Your task to perform on an android device: Open calendar and show me the first week of next month Image 0: 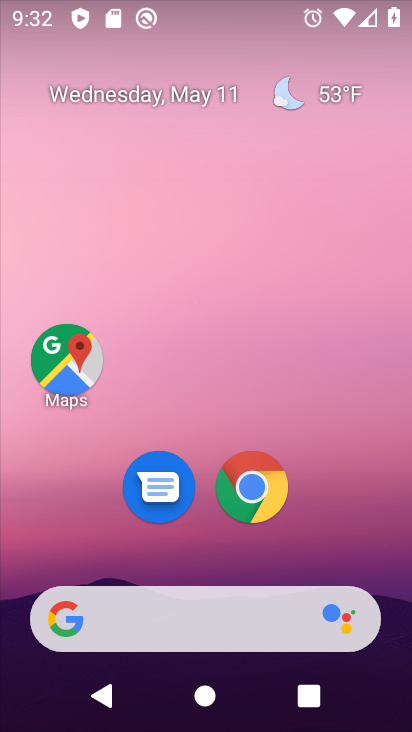
Step 0: drag from (189, 499) to (355, 54)
Your task to perform on an android device: Open calendar and show me the first week of next month Image 1: 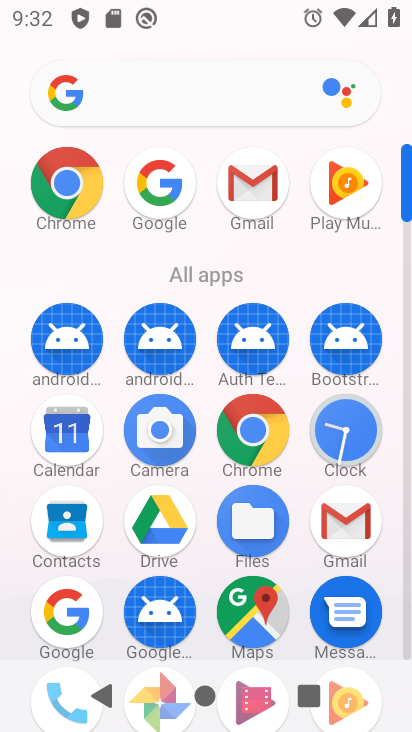
Step 1: drag from (206, 503) to (249, 310)
Your task to perform on an android device: Open calendar and show me the first week of next month Image 2: 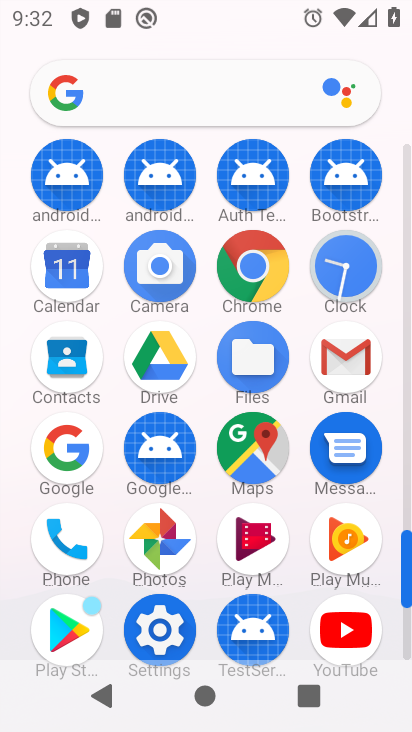
Step 2: drag from (203, 559) to (218, 370)
Your task to perform on an android device: Open calendar and show me the first week of next month Image 3: 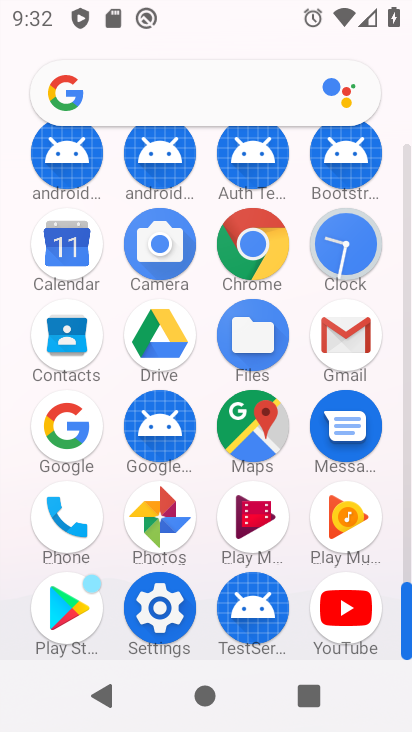
Step 3: click (61, 230)
Your task to perform on an android device: Open calendar and show me the first week of next month Image 4: 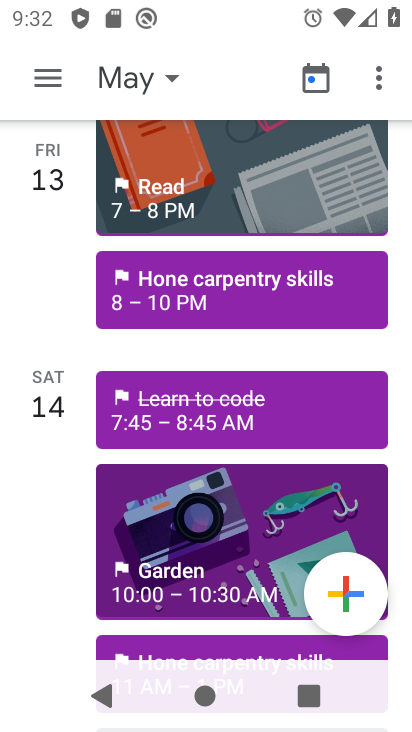
Step 4: click (170, 77)
Your task to perform on an android device: Open calendar and show me the first week of next month Image 5: 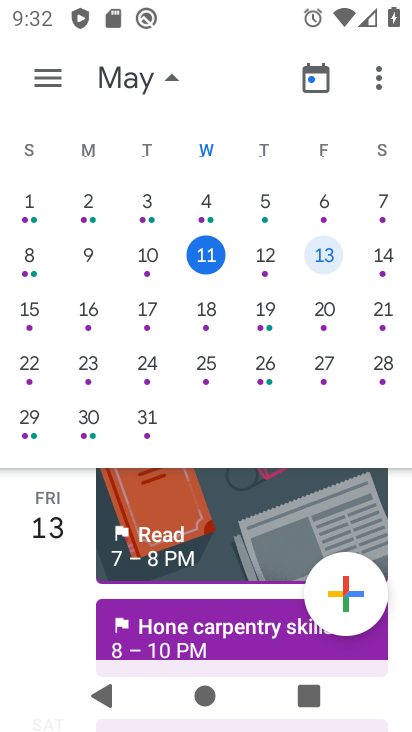
Step 5: drag from (345, 270) to (46, 268)
Your task to perform on an android device: Open calendar and show me the first week of next month Image 6: 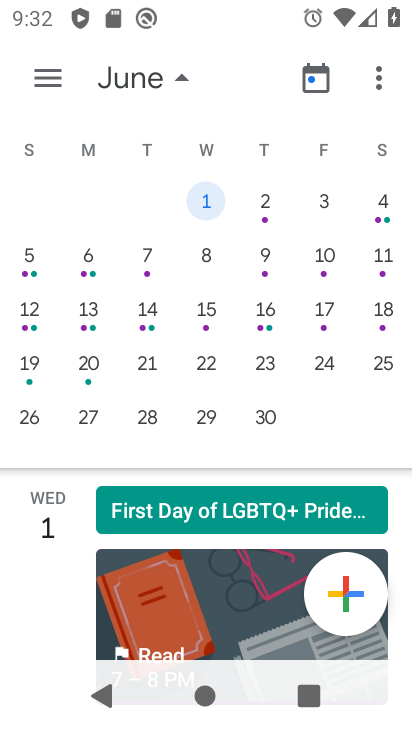
Step 6: click (250, 200)
Your task to perform on an android device: Open calendar and show me the first week of next month Image 7: 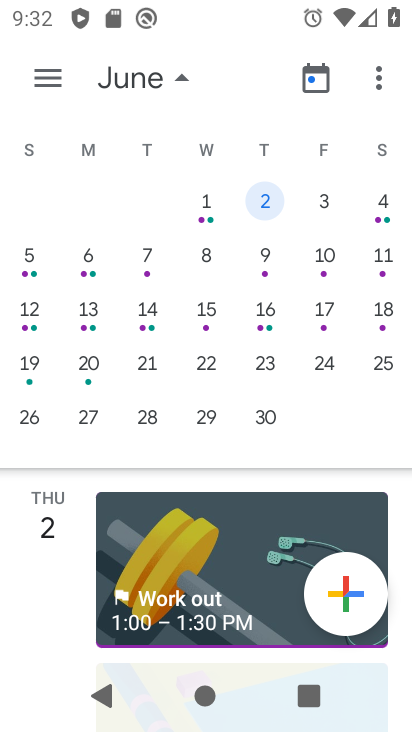
Step 7: task complete